Your task to perform on an android device: toggle location history Image 0: 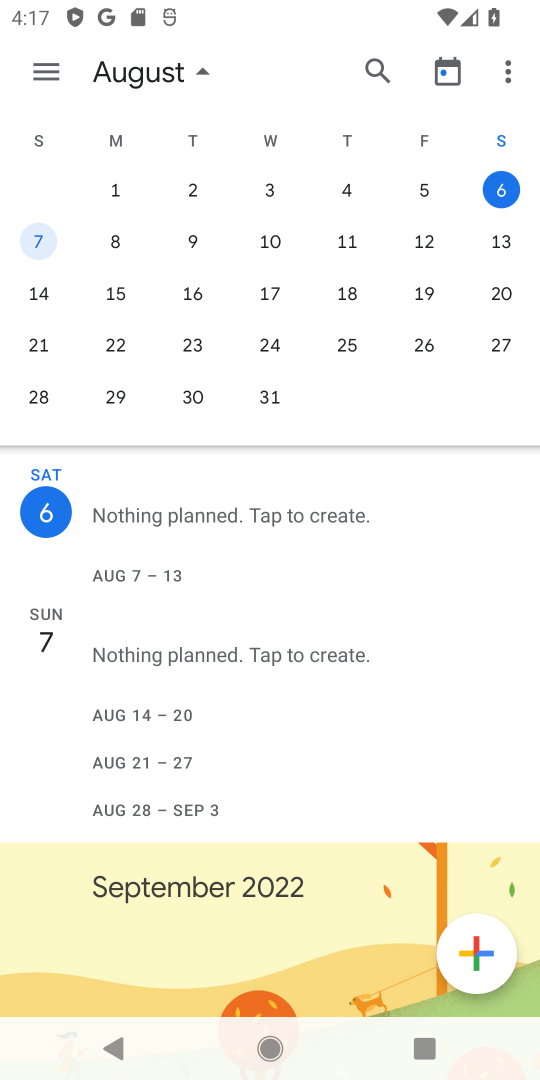
Step 0: press home button
Your task to perform on an android device: toggle location history Image 1: 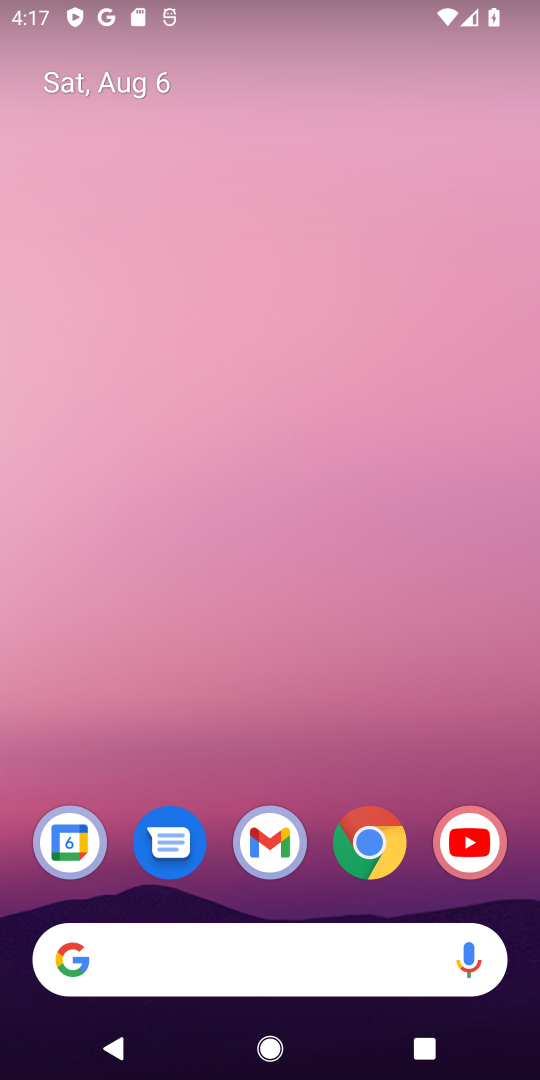
Step 1: drag from (519, 1003) to (445, 163)
Your task to perform on an android device: toggle location history Image 2: 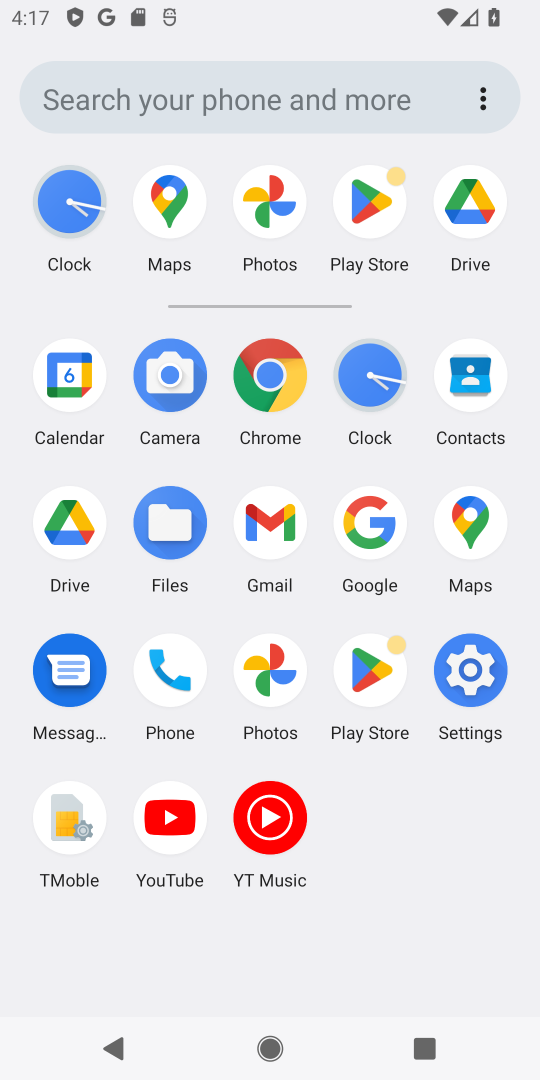
Step 2: click (459, 671)
Your task to perform on an android device: toggle location history Image 3: 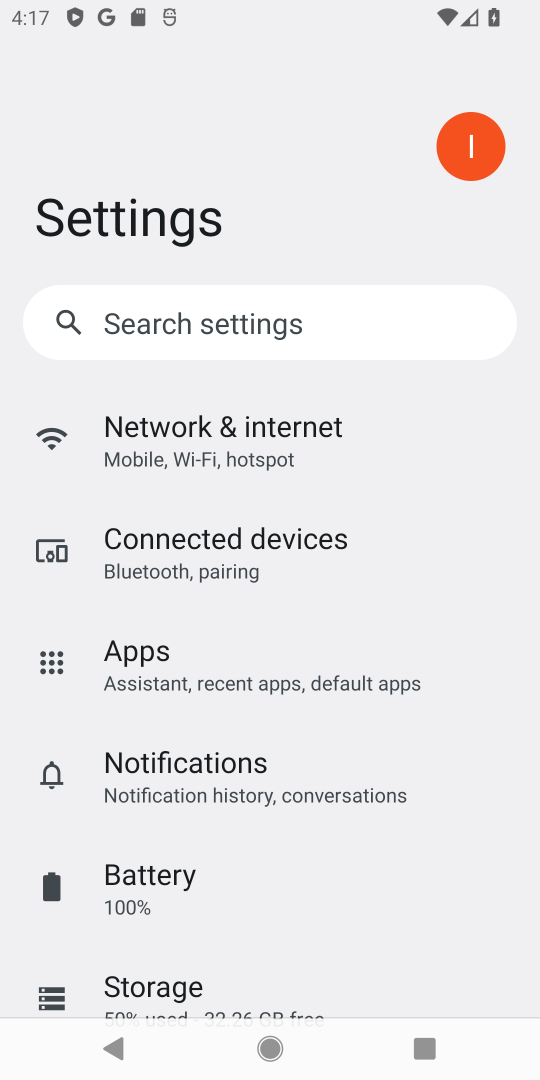
Step 3: drag from (394, 966) to (363, 357)
Your task to perform on an android device: toggle location history Image 4: 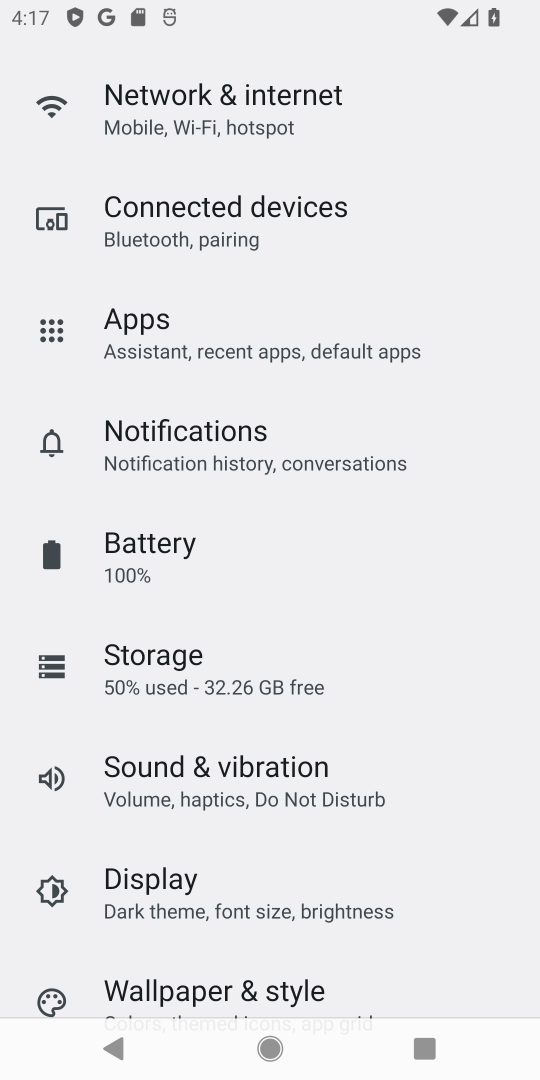
Step 4: drag from (415, 961) to (377, 407)
Your task to perform on an android device: toggle location history Image 5: 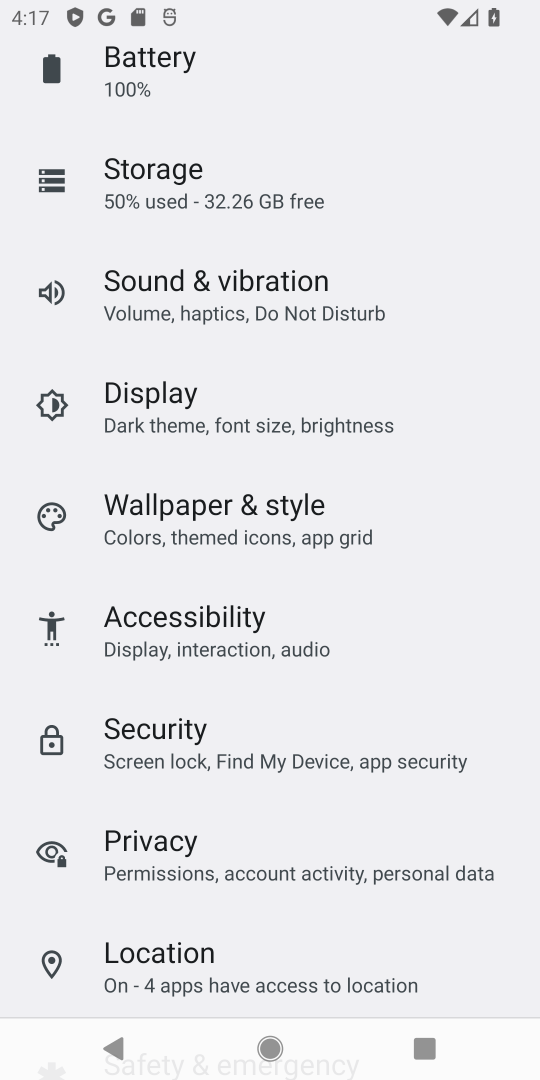
Step 5: click (191, 948)
Your task to perform on an android device: toggle location history Image 6: 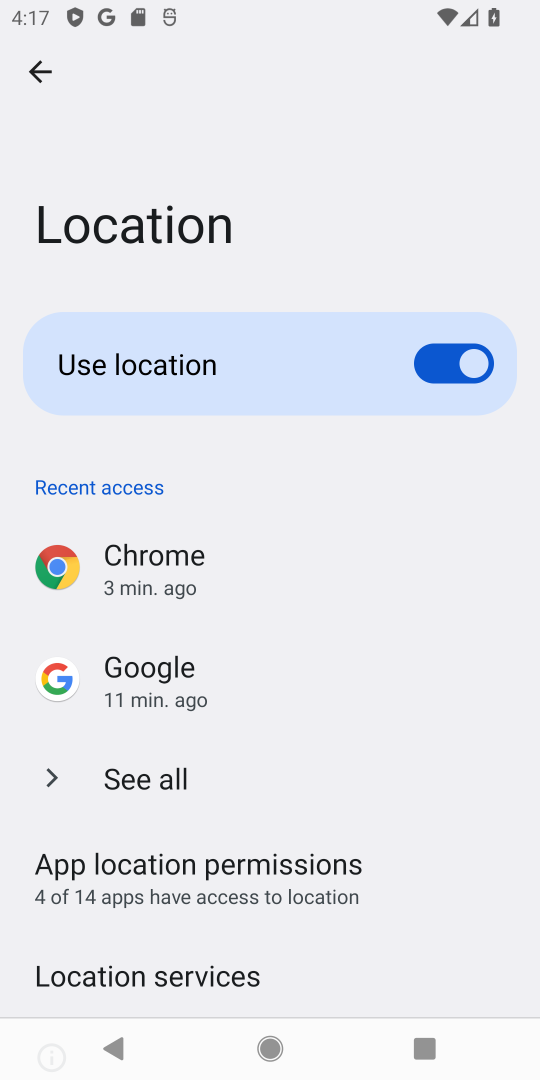
Step 6: drag from (415, 997) to (346, 169)
Your task to perform on an android device: toggle location history Image 7: 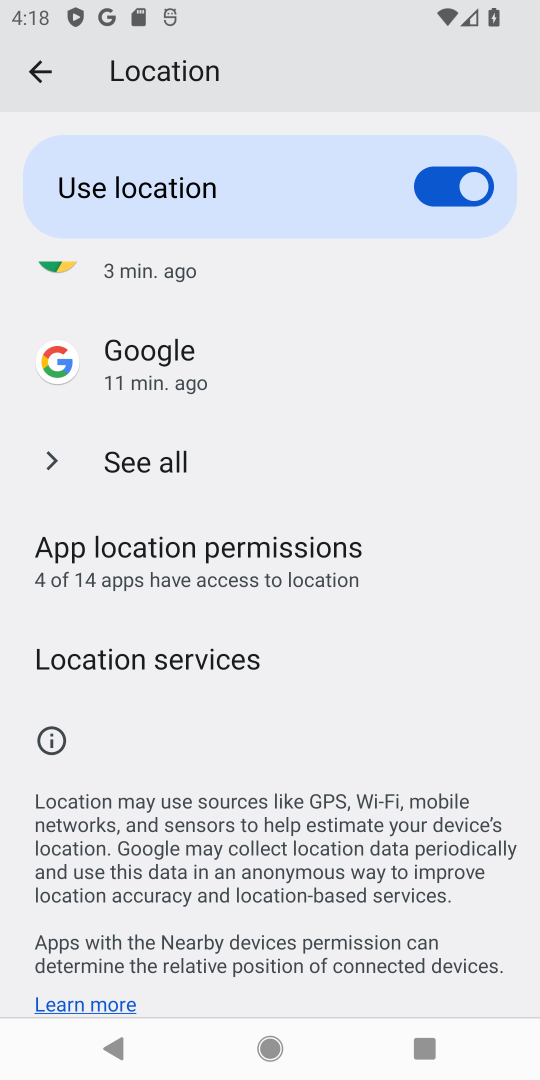
Step 7: click (55, 462)
Your task to perform on an android device: toggle location history Image 8: 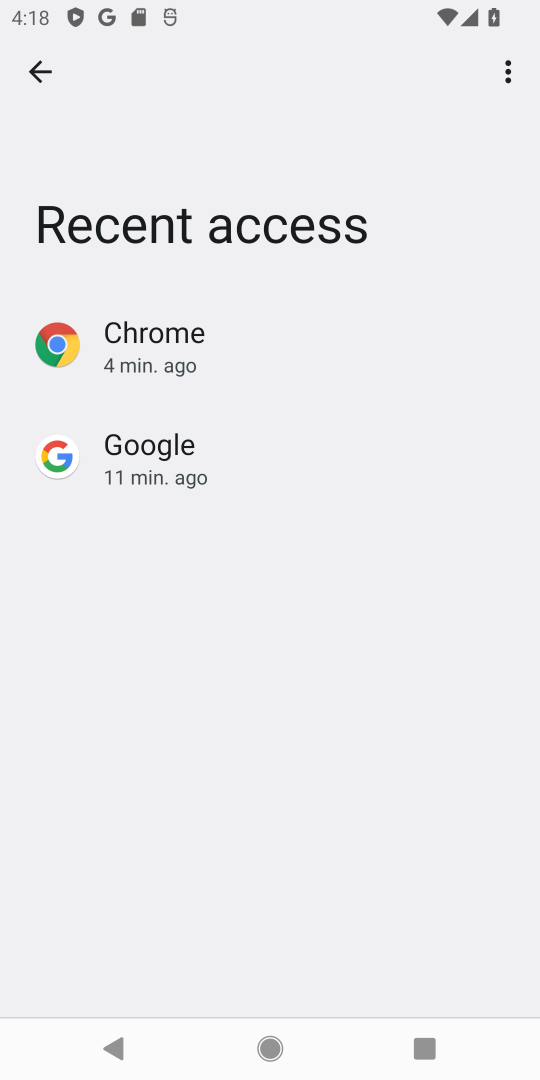
Step 8: click (26, 83)
Your task to perform on an android device: toggle location history Image 9: 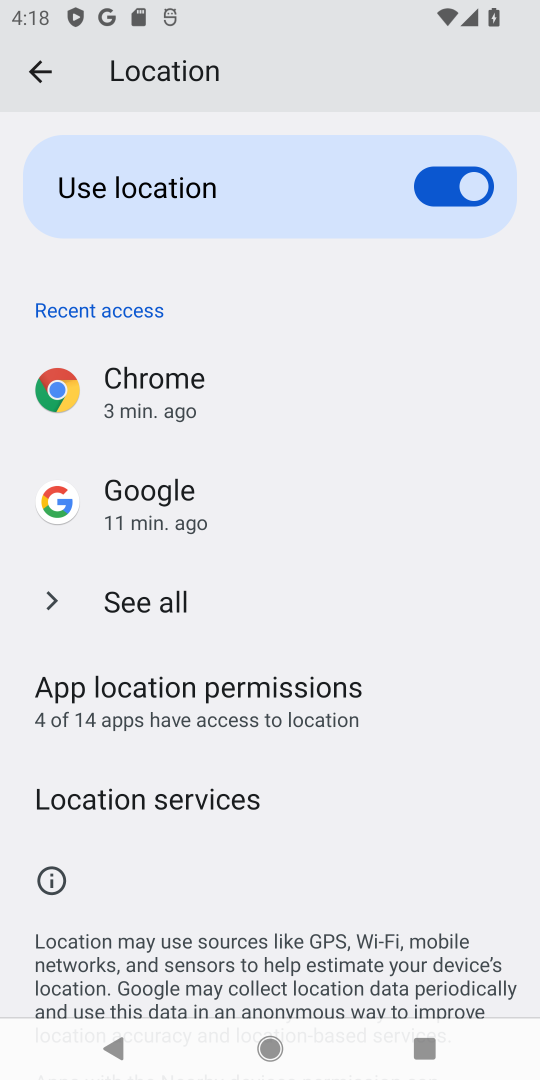
Step 9: task complete